Your task to perform on an android device: Go to ESPN.com Image 0: 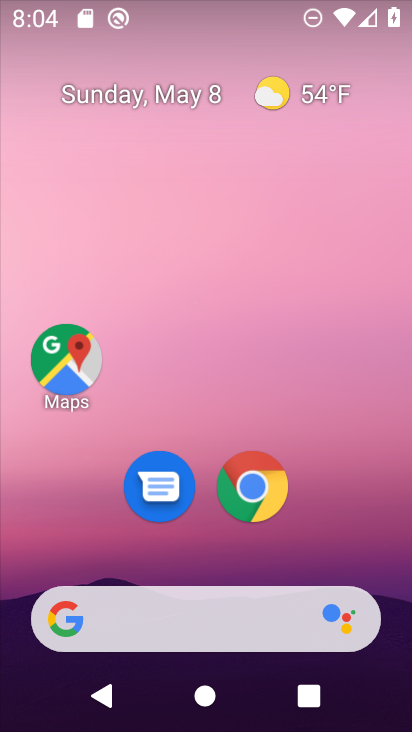
Step 0: click (248, 491)
Your task to perform on an android device: Go to ESPN.com Image 1: 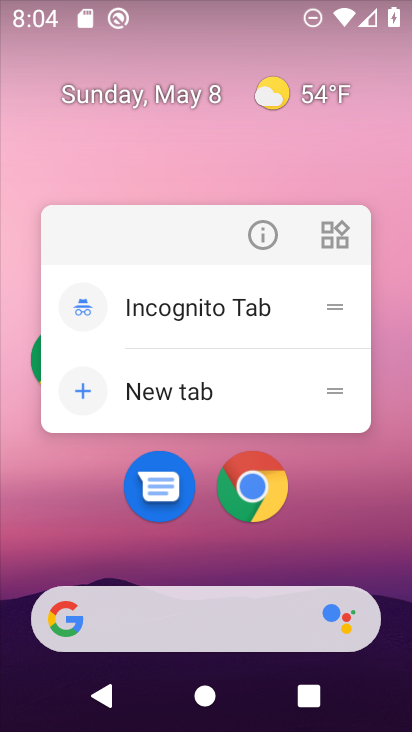
Step 1: click (254, 236)
Your task to perform on an android device: Go to ESPN.com Image 2: 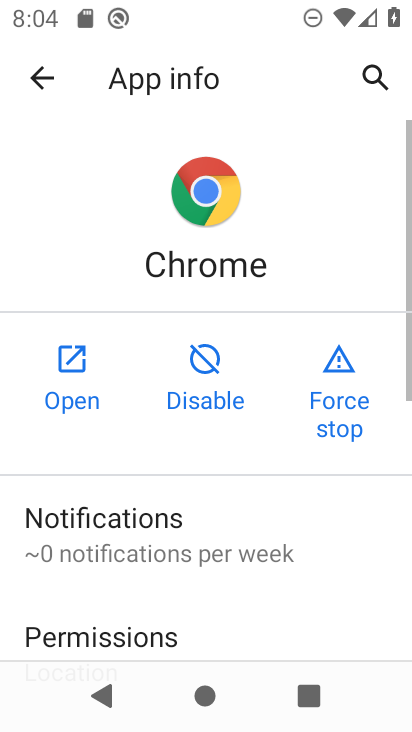
Step 2: click (86, 414)
Your task to perform on an android device: Go to ESPN.com Image 3: 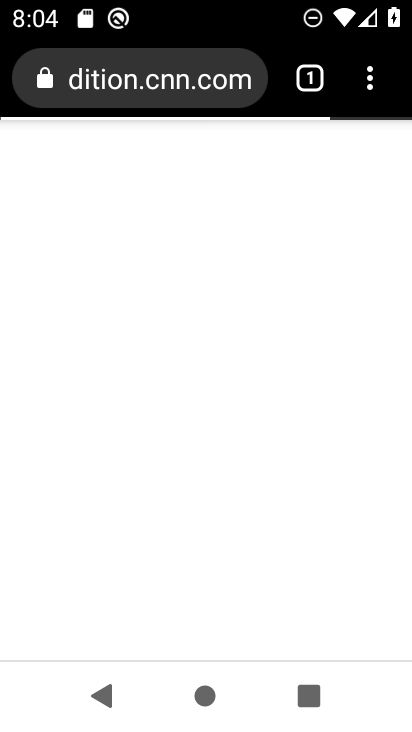
Step 3: click (171, 82)
Your task to perform on an android device: Go to ESPN.com Image 4: 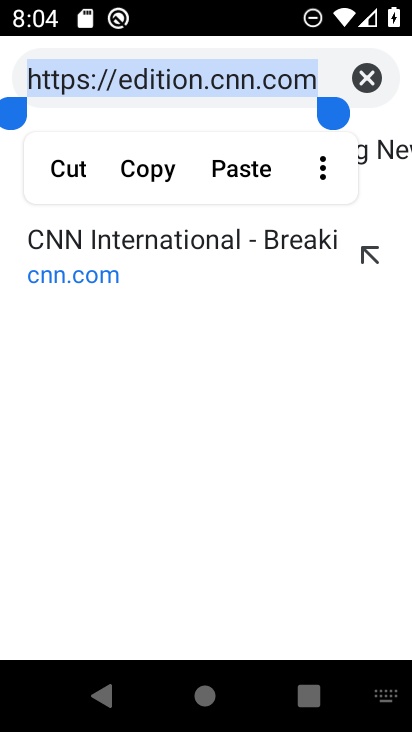
Step 4: type "ESPN.com"
Your task to perform on an android device: Go to ESPN.com Image 5: 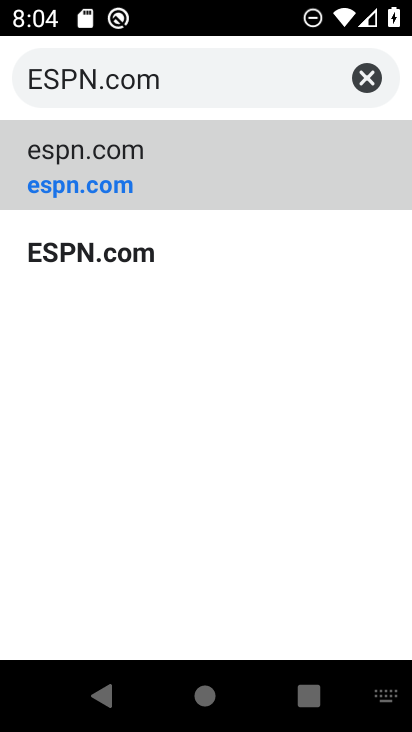
Step 5: click (143, 181)
Your task to perform on an android device: Go to ESPN.com Image 6: 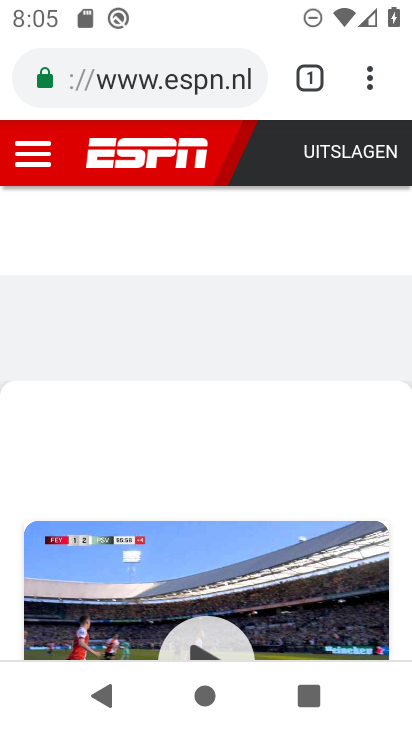
Step 6: task complete